Your task to perform on an android device: open app "Spotify" (install if not already installed) Image 0: 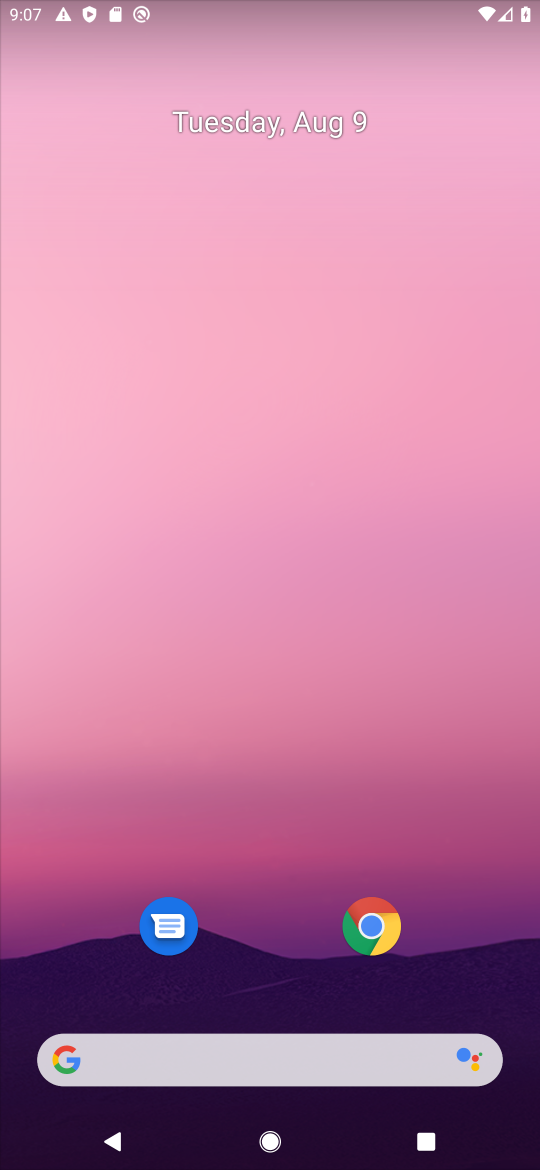
Step 0: drag from (223, 998) to (253, 293)
Your task to perform on an android device: open app "Spotify" (install if not already installed) Image 1: 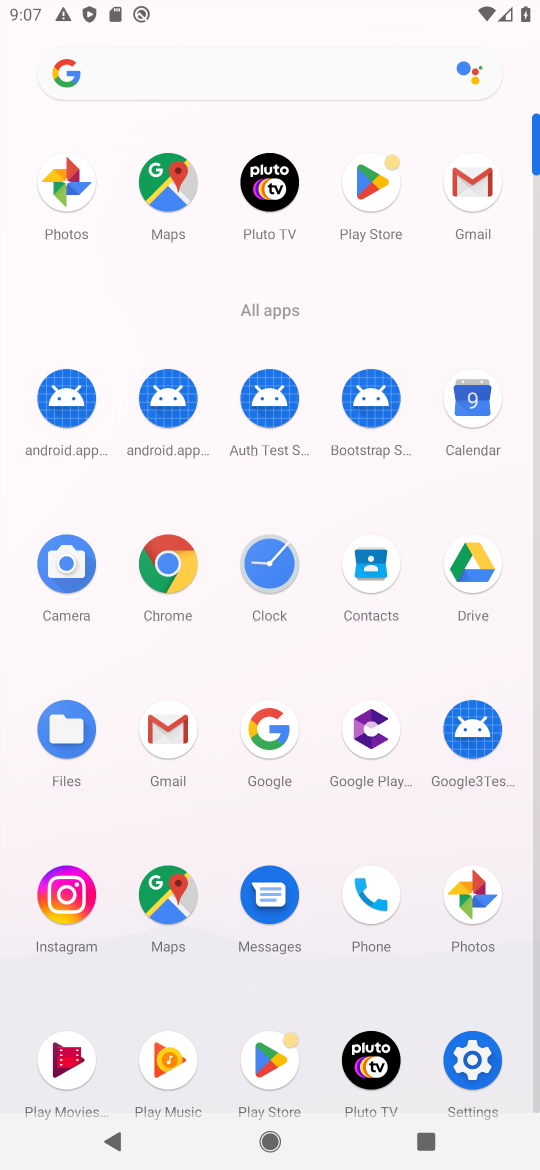
Step 1: click (269, 1058)
Your task to perform on an android device: open app "Spotify" (install if not already installed) Image 2: 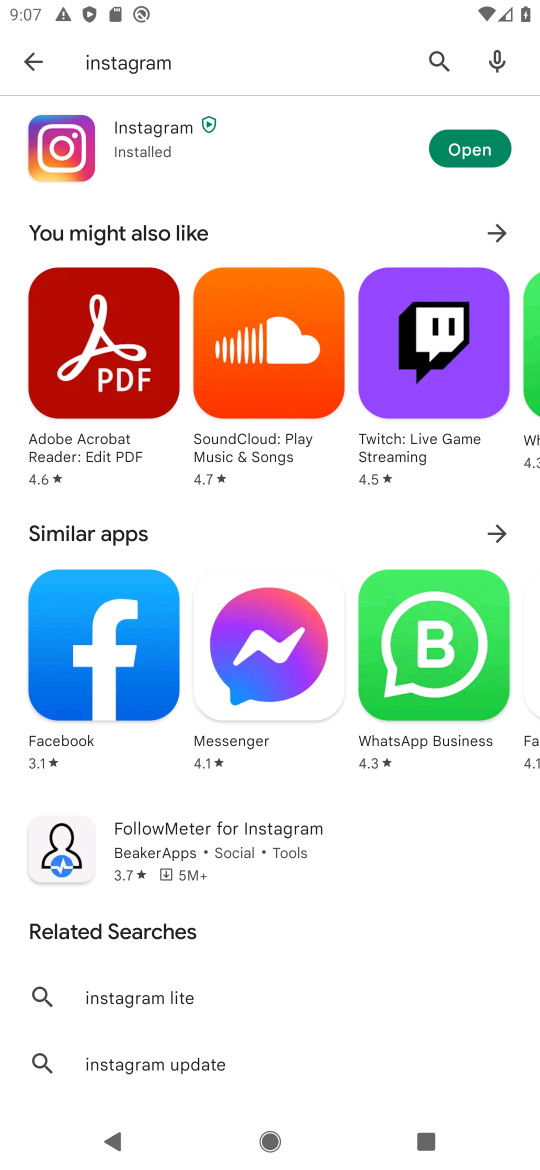
Step 2: click (147, 68)
Your task to perform on an android device: open app "Spotify" (install if not already installed) Image 3: 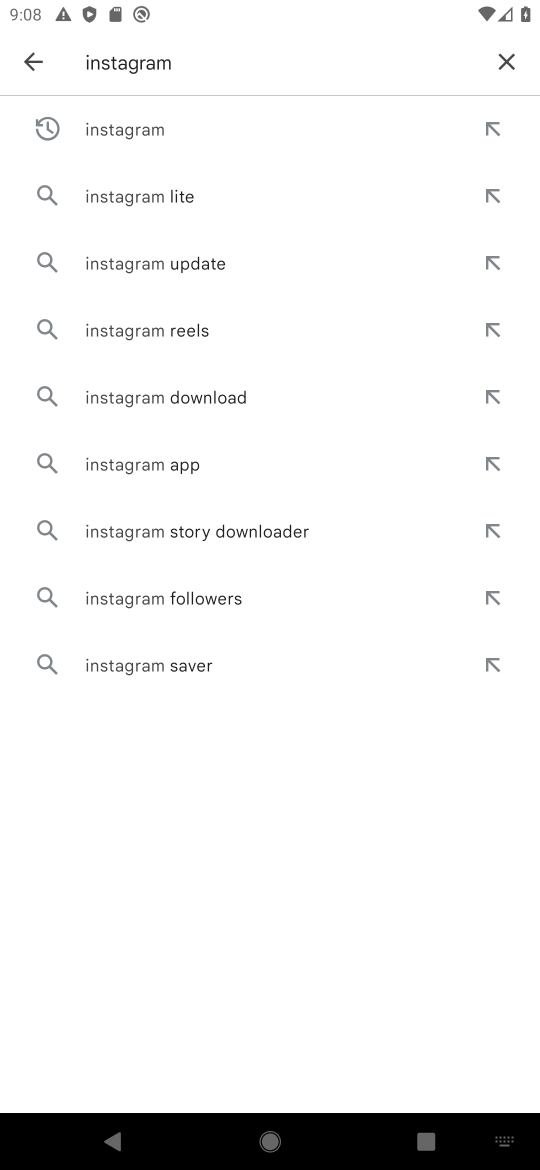
Step 3: click (509, 67)
Your task to perform on an android device: open app "Spotify" (install if not already installed) Image 4: 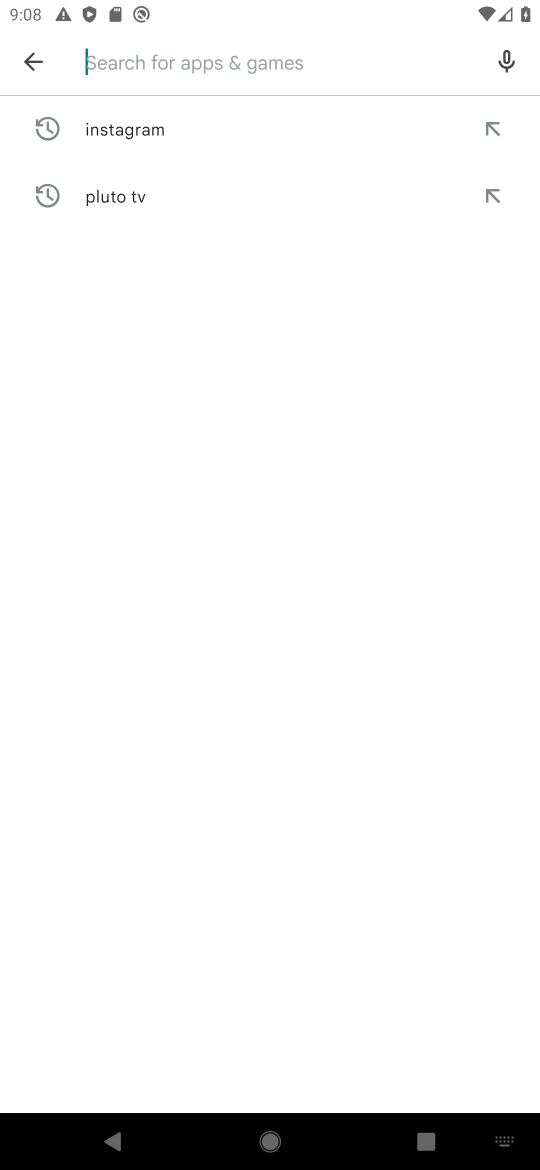
Step 4: type "spotify"
Your task to perform on an android device: open app "Spotify" (install if not already installed) Image 5: 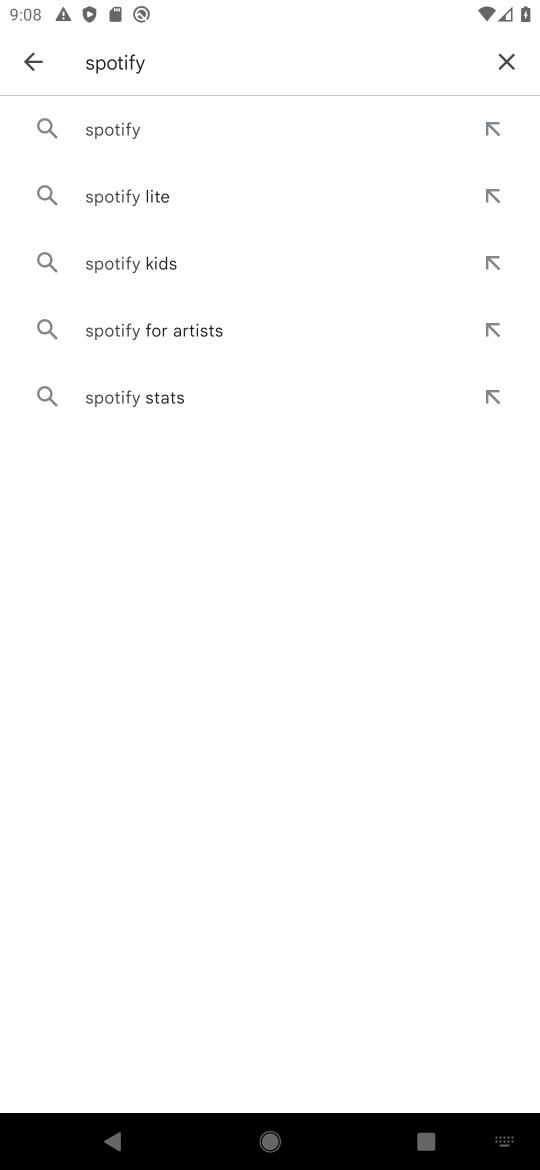
Step 5: click (159, 140)
Your task to perform on an android device: open app "Spotify" (install if not already installed) Image 6: 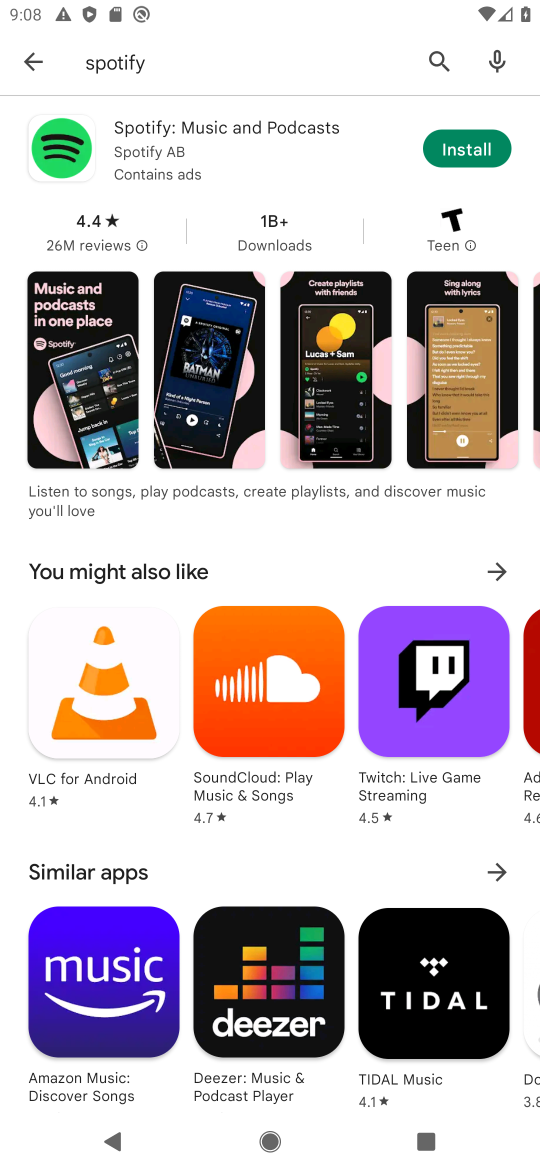
Step 6: click (455, 139)
Your task to perform on an android device: open app "Spotify" (install if not already installed) Image 7: 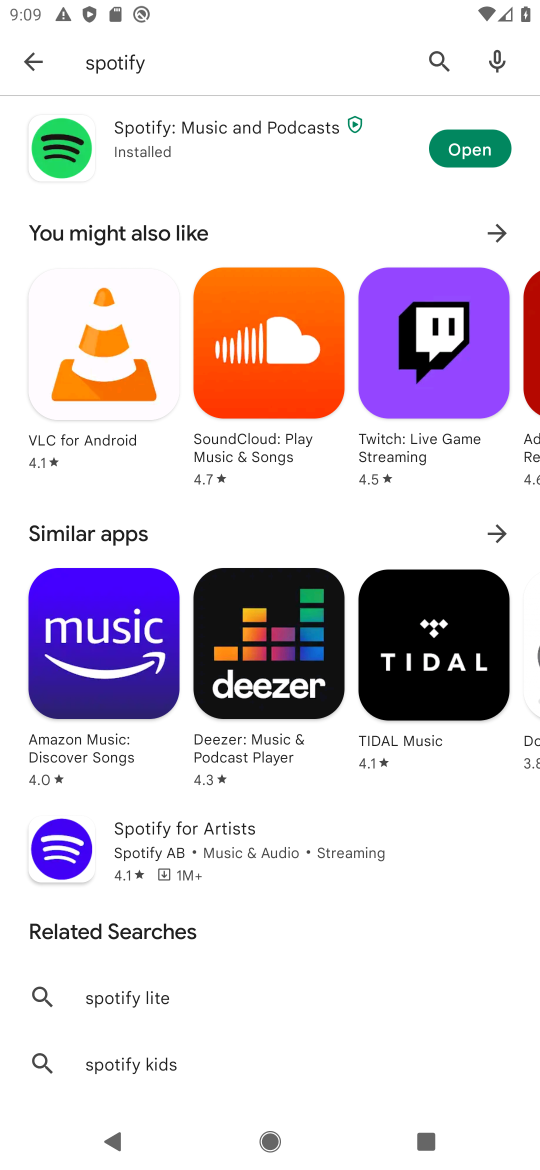
Step 7: click (462, 147)
Your task to perform on an android device: open app "Spotify" (install if not already installed) Image 8: 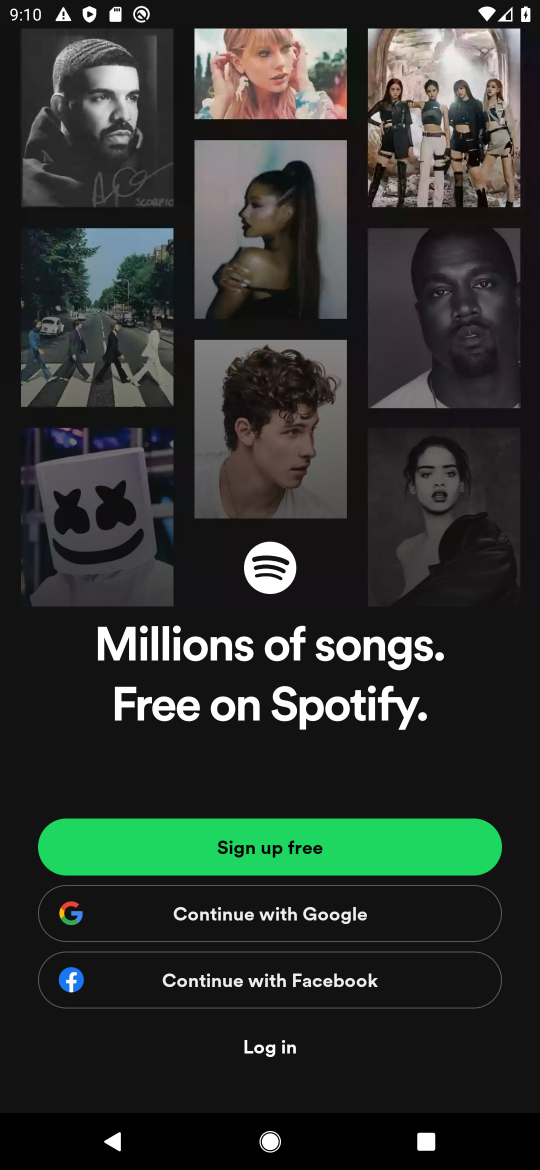
Step 8: click (338, 915)
Your task to perform on an android device: open app "Spotify" (install if not already installed) Image 9: 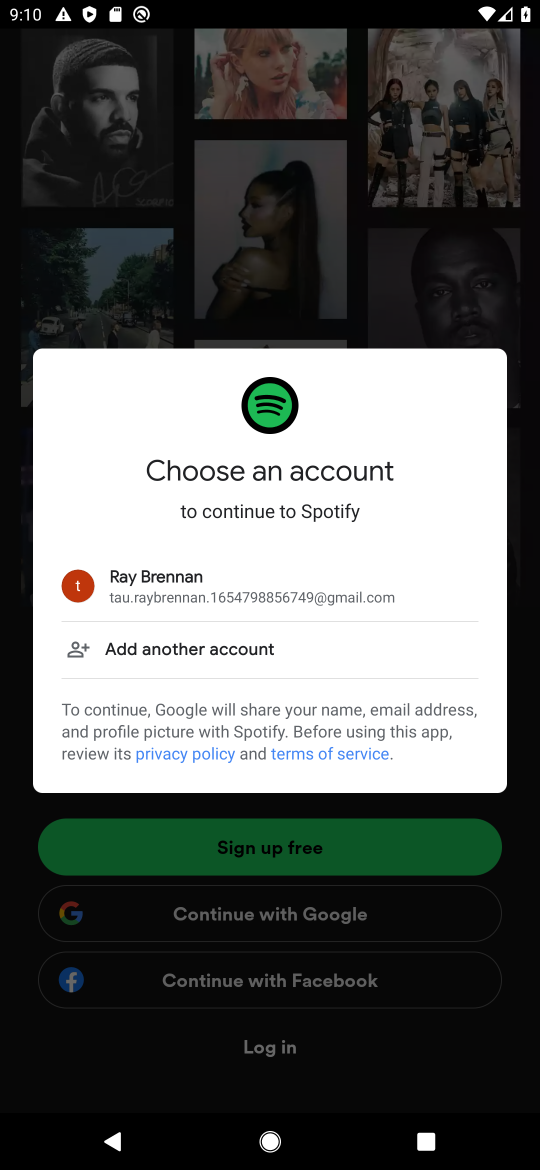
Step 9: click (224, 569)
Your task to perform on an android device: open app "Spotify" (install if not already installed) Image 10: 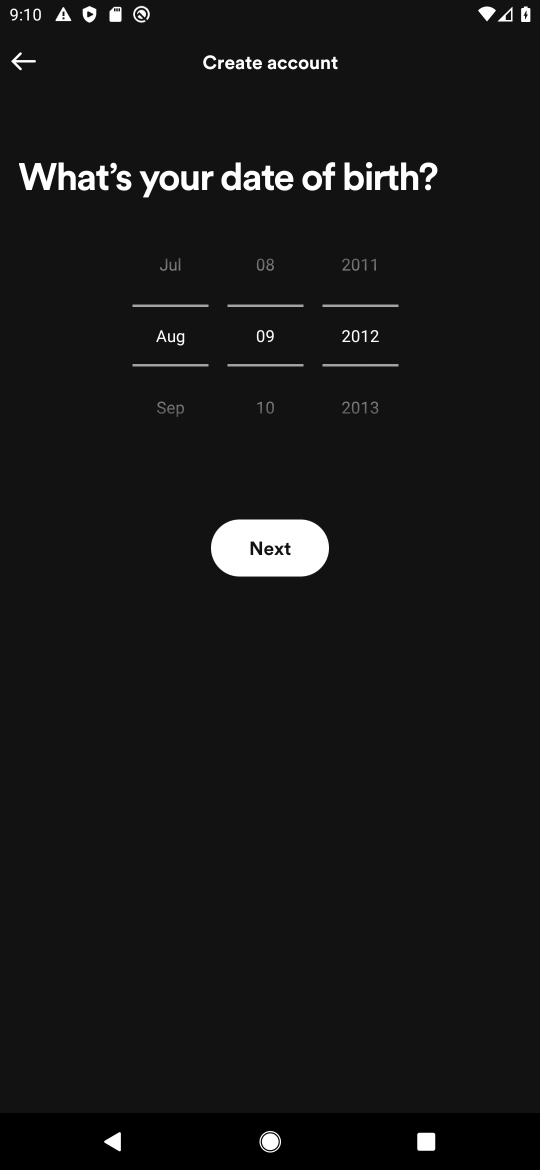
Step 10: drag from (368, 324) to (371, 477)
Your task to perform on an android device: open app "Spotify" (install if not already installed) Image 11: 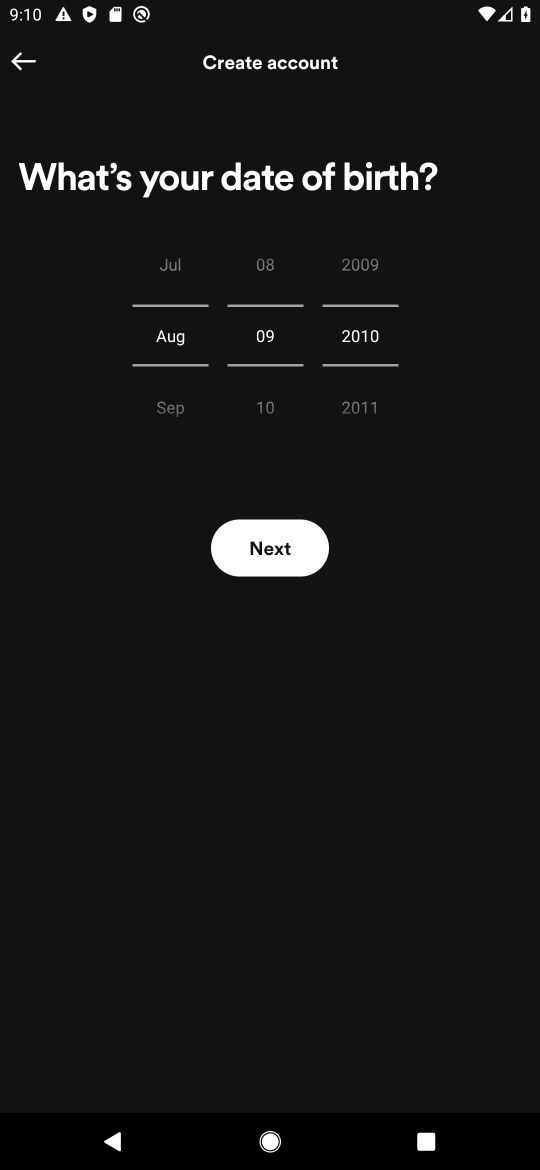
Step 11: drag from (359, 361) to (373, 542)
Your task to perform on an android device: open app "Spotify" (install if not already installed) Image 12: 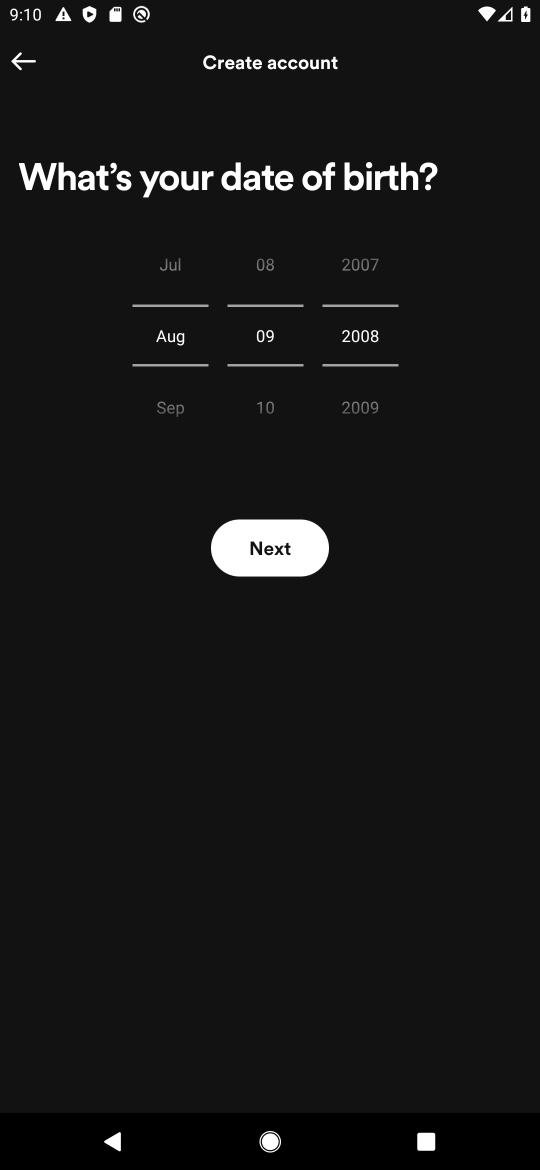
Step 12: drag from (368, 269) to (368, 504)
Your task to perform on an android device: open app "Spotify" (install if not already installed) Image 13: 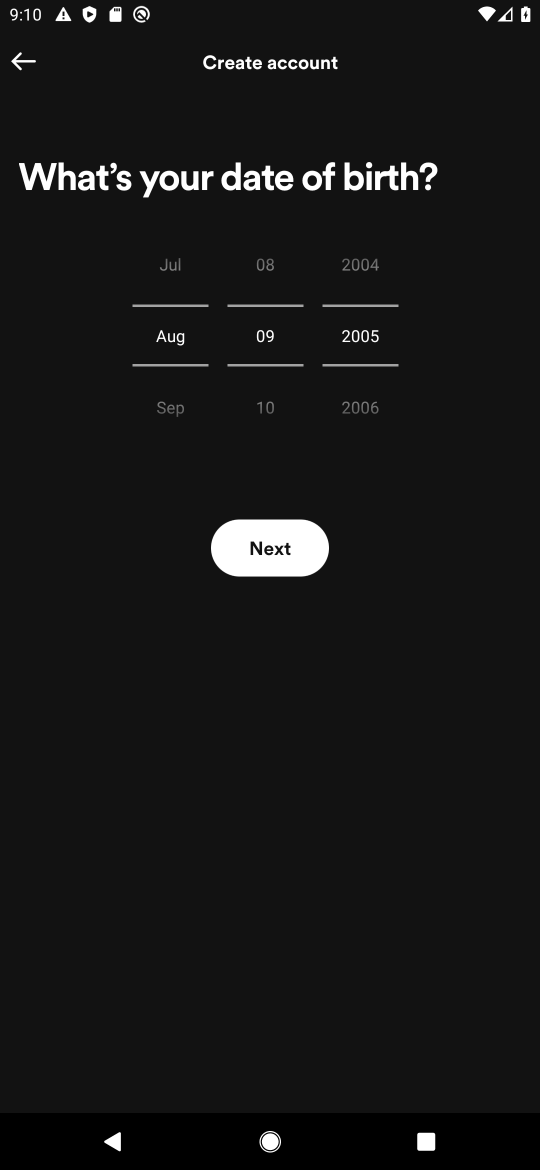
Step 13: drag from (361, 255) to (360, 396)
Your task to perform on an android device: open app "Spotify" (install if not already installed) Image 14: 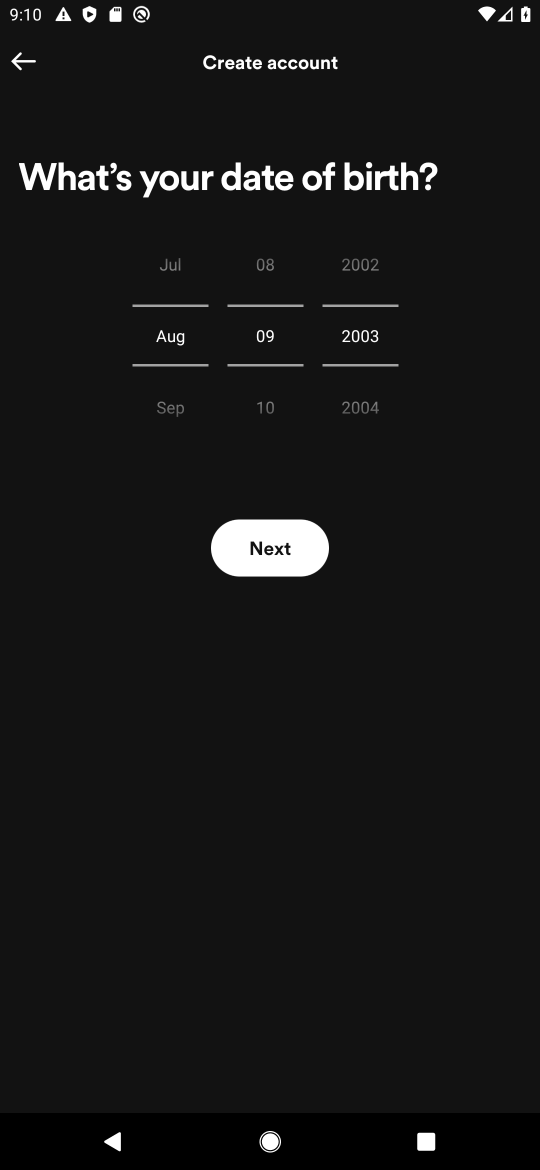
Step 14: drag from (362, 272) to (350, 475)
Your task to perform on an android device: open app "Spotify" (install if not already installed) Image 15: 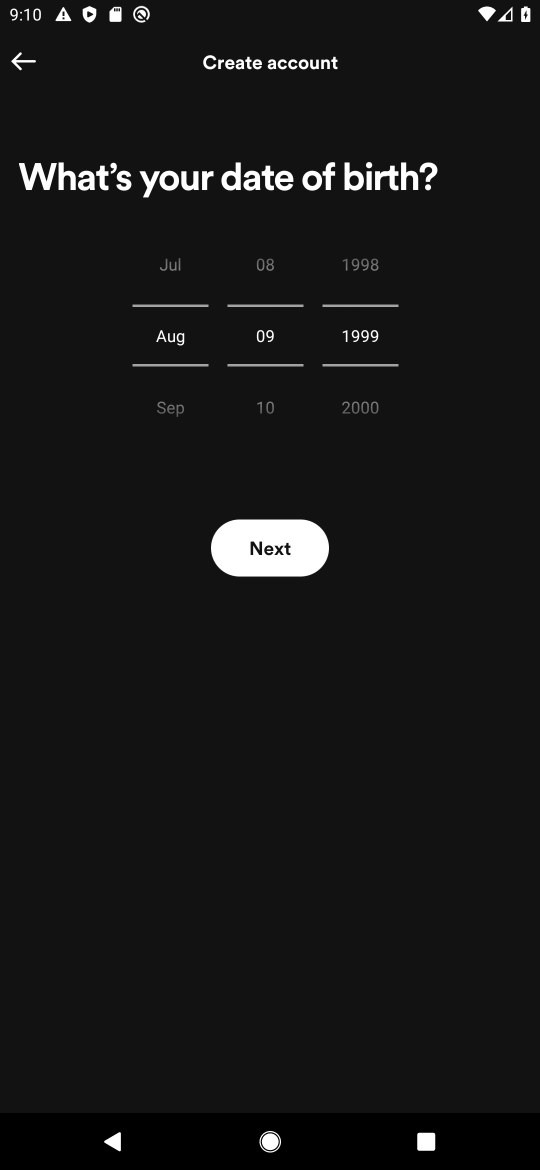
Step 15: click (289, 542)
Your task to perform on an android device: open app "Spotify" (install if not already installed) Image 16: 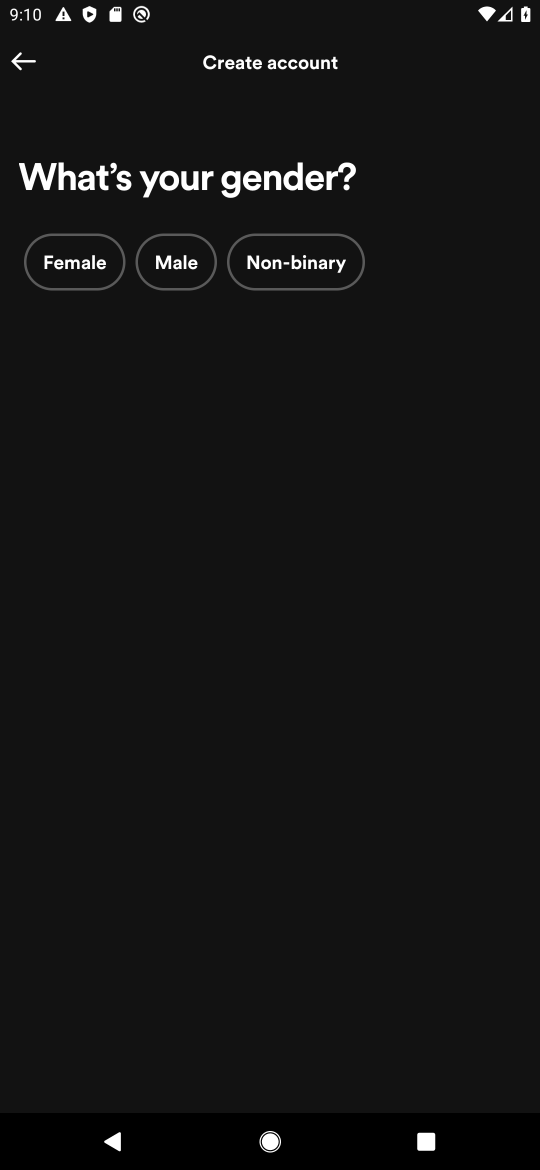
Step 16: click (175, 251)
Your task to perform on an android device: open app "Spotify" (install if not already installed) Image 17: 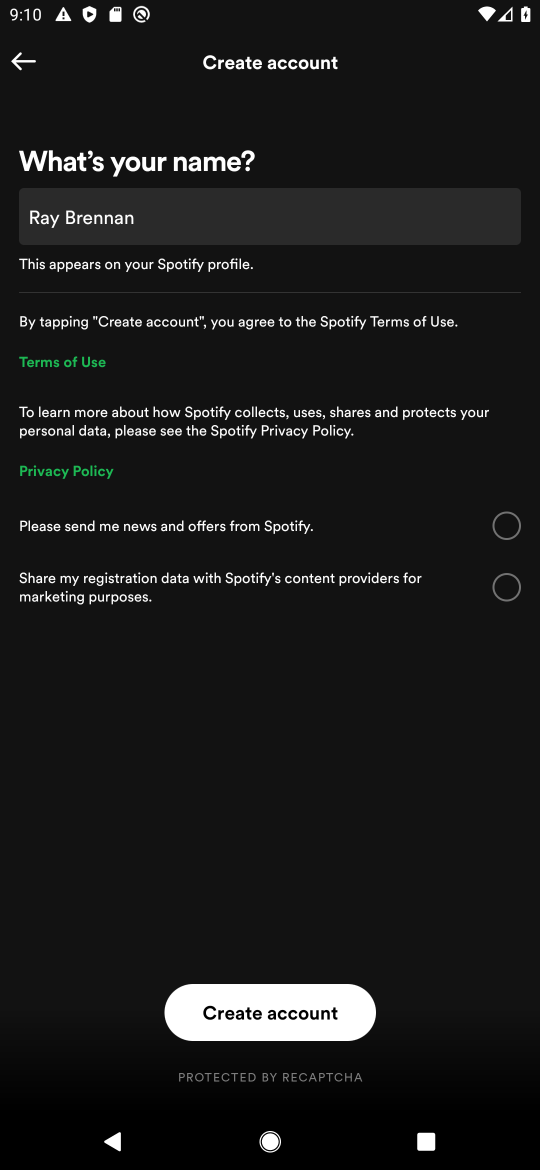
Step 17: task complete